Your task to perform on an android device: clear history in the chrome app Image 0: 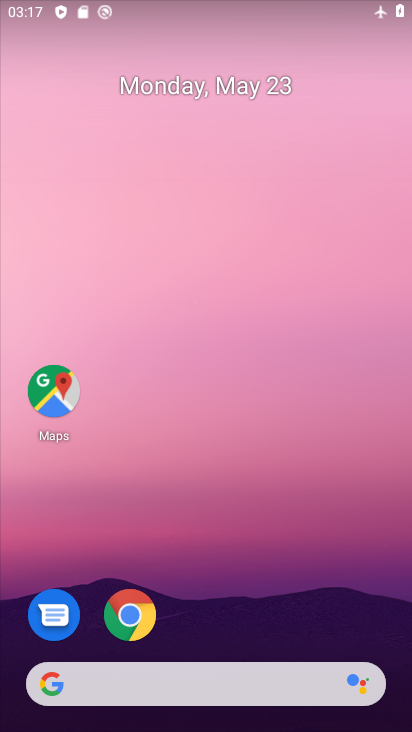
Step 0: drag from (303, 593) to (307, 259)
Your task to perform on an android device: clear history in the chrome app Image 1: 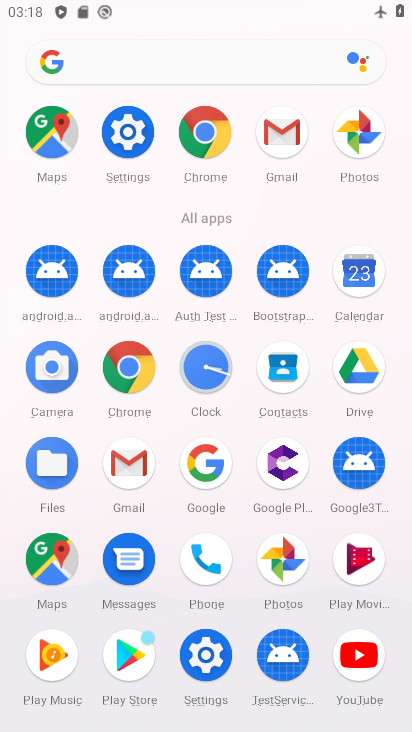
Step 1: click (117, 365)
Your task to perform on an android device: clear history in the chrome app Image 2: 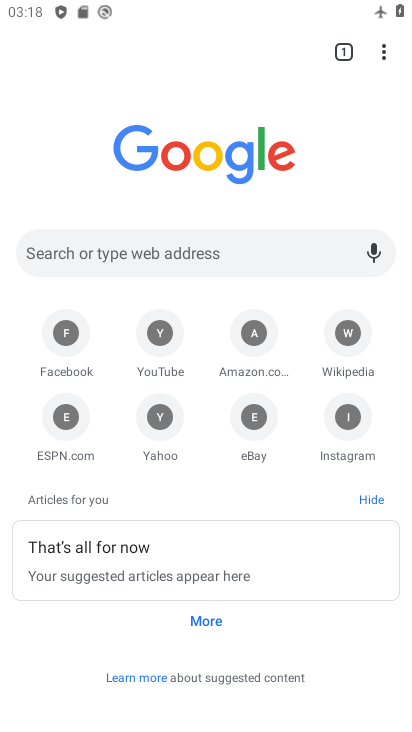
Step 2: click (387, 53)
Your task to perform on an android device: clear history in the chrome app Image 3: 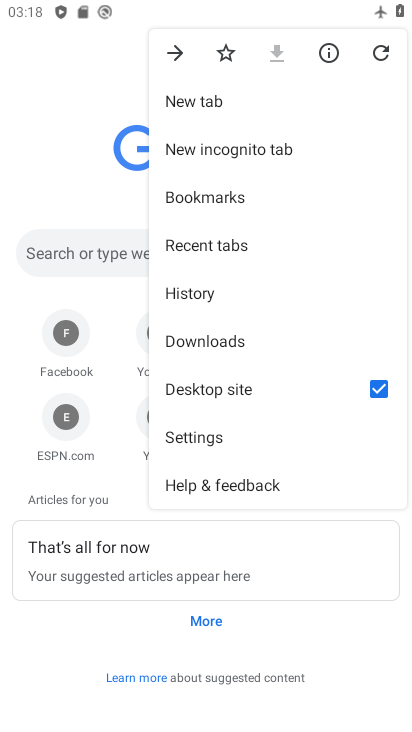
Step 3: click (215, 295)
Your task to perform on an android device: clear history in the chrome app Image 4: 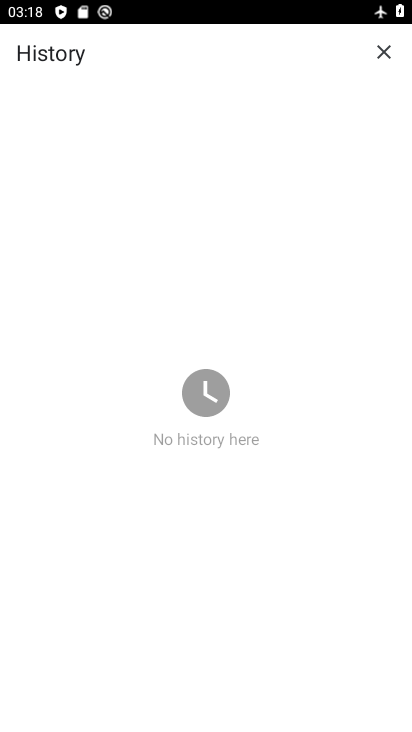
Step 4: task complete